Your task to perform on an android device: Go to Google maps Image 0: 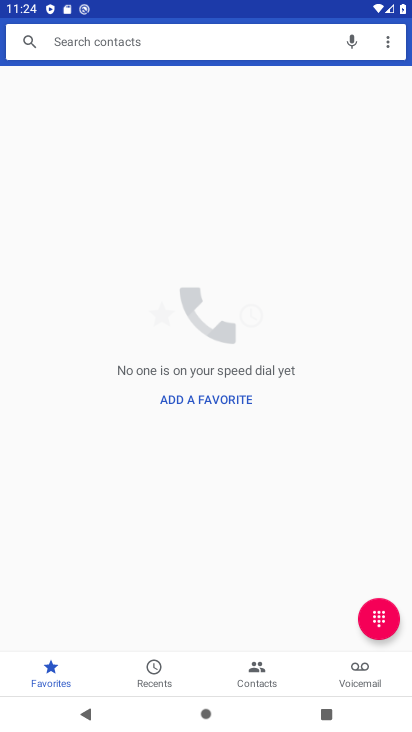
Step 0: press home button
Your task to perform on an android device: Go to Google maps Image 1: 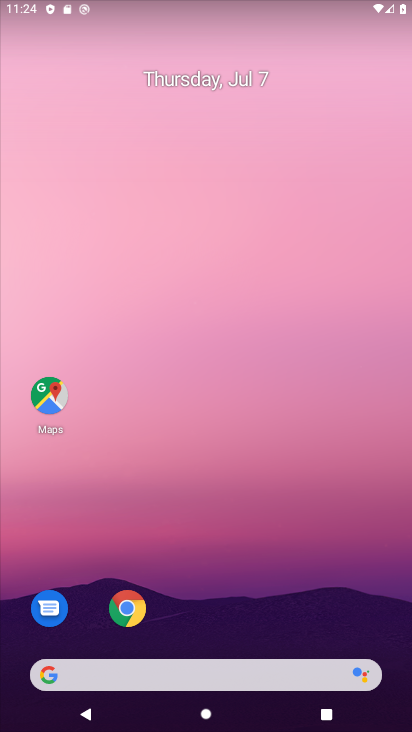
Step 1: drag from (239, 603) to (205, 163)
Your task to perform on an android device: Go to Google maps Image 2: 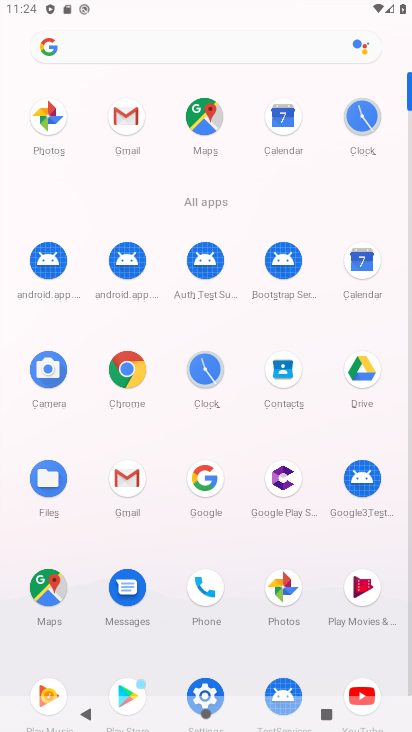
Step 2: click (213, 133)
Your task to perform on an android device: Go to Google maps Image 3: 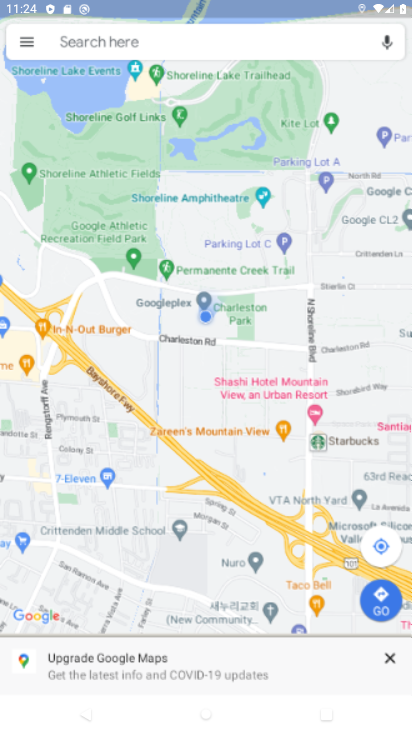
Step 3: task complete